Your task to perform on an android device: Find coffee shops on Maps Image 0: 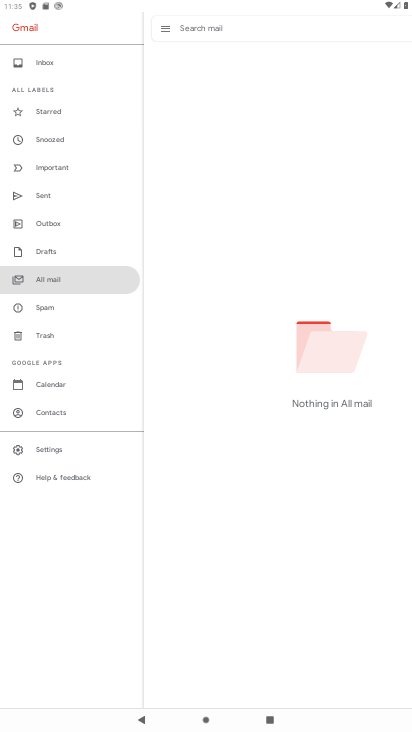
Step 0: press home button
Your task to perform on an android device: Find coffee shops on Maps Image 1: 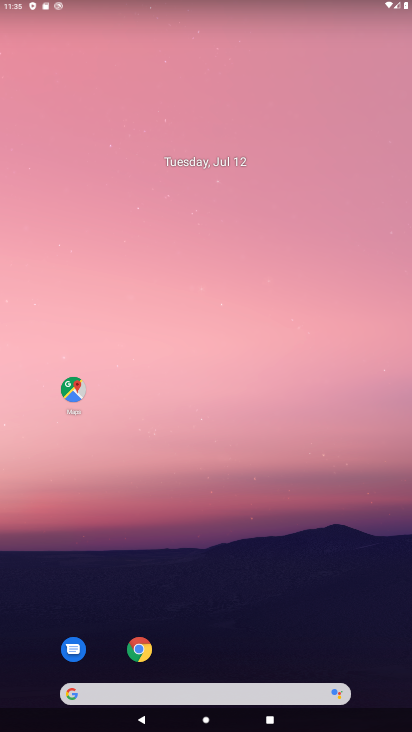
Step 1: click (74, 379)
Your task to perform on an android device: Find coffee shops on Maps Image 2: 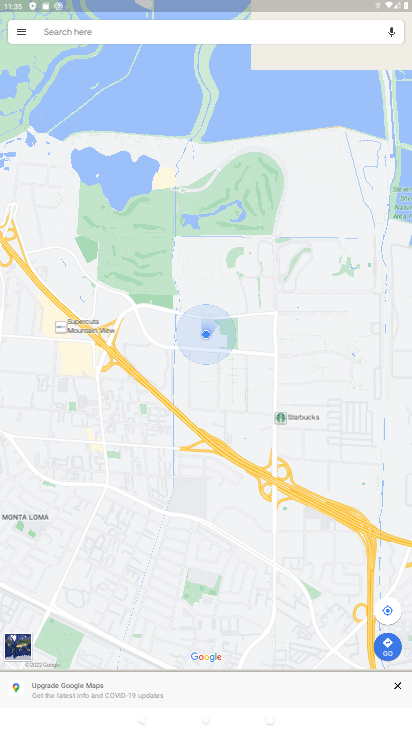
Step 2: click (272, 39)
Your task to perform on an android device: Find coffee shops on Maps Image 3: 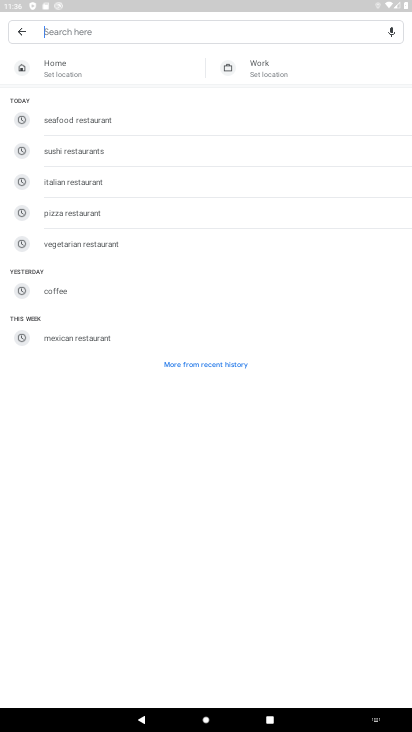
Step 3: type "coffee shops"
Your task to perform on an android device: Find coffee shops on Maps Image 4: 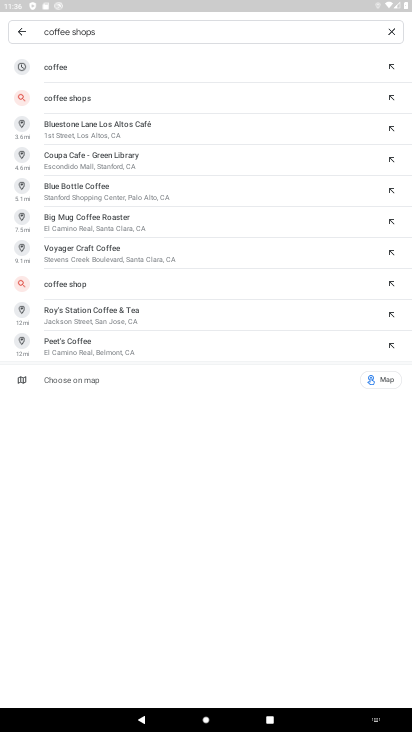
Step 4: click (124, 97)
Your task to perform on an android device: Find coffee shops on Maps Image 5: 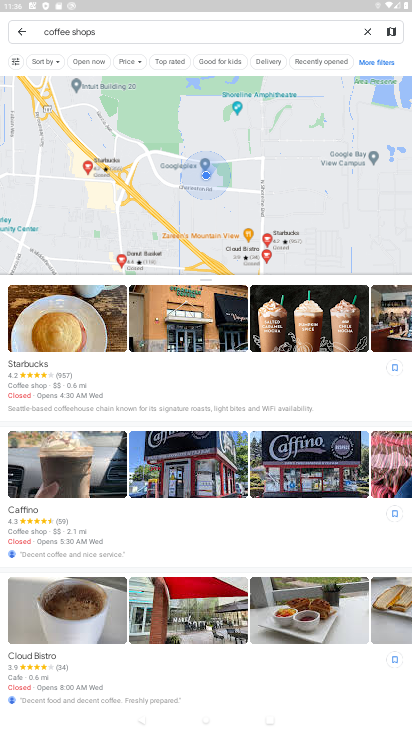
Step 5: task complete